Your task to perform on an android device: Go to network settings Image 0: 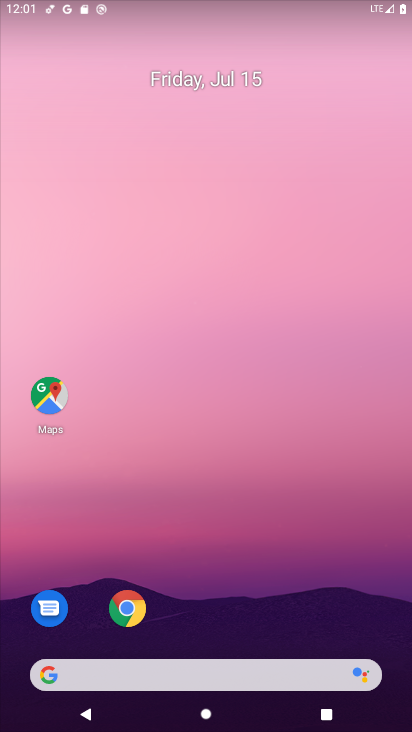
Step 0: drag from (200, 590) to (108, 157)
Your task to perform on an android device: Go to network settings Image 1: 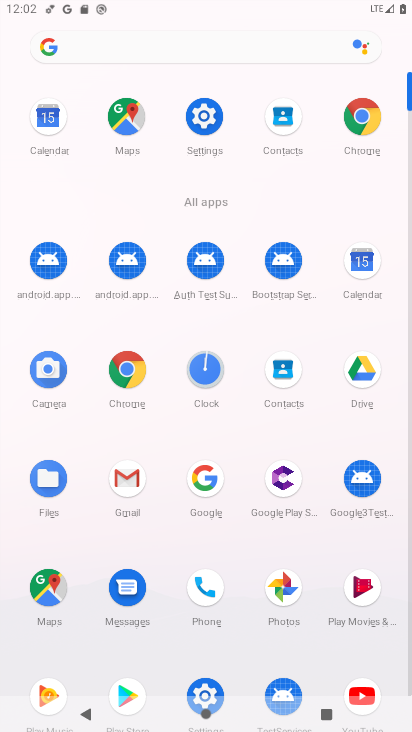
Step 1: click (200, 113)
Your task to perform on an android device: Go to network settings Image 2: 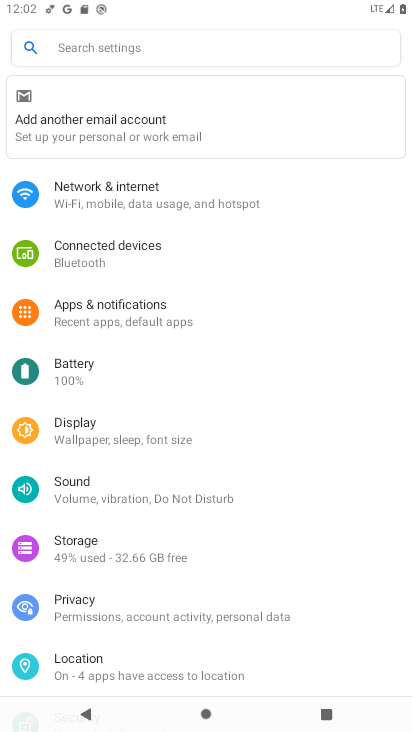
Step 2: click (85, 186)
Your task to perform on an android device: Go to network settings Image 3: 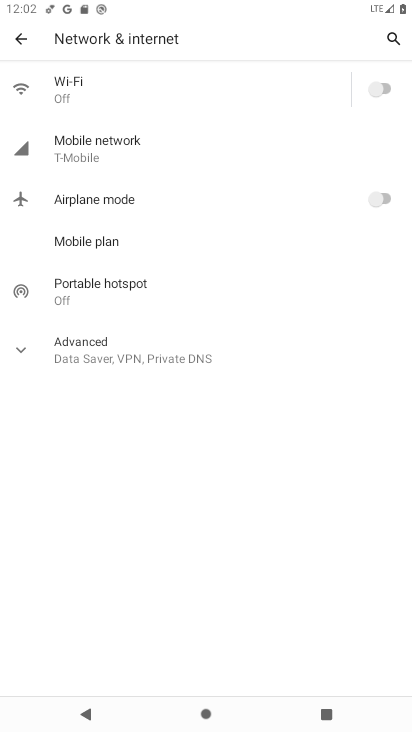
Step 3: click (95, 142)
Your task to perform on an android device: Go to network settings Image 4: 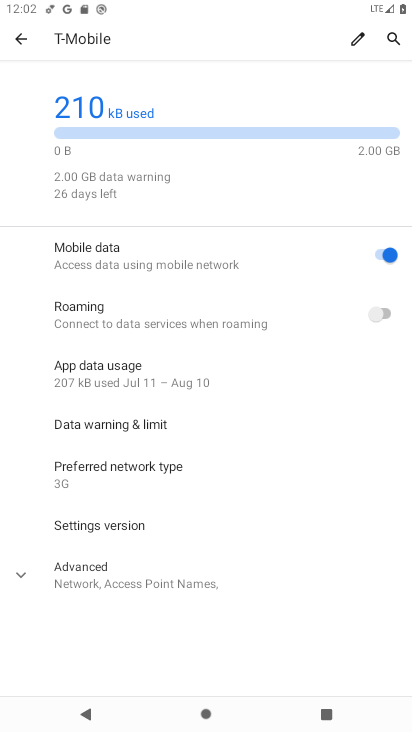
Step 4: task complete